Your task to perform on an android device: Go to Maps Image 0: 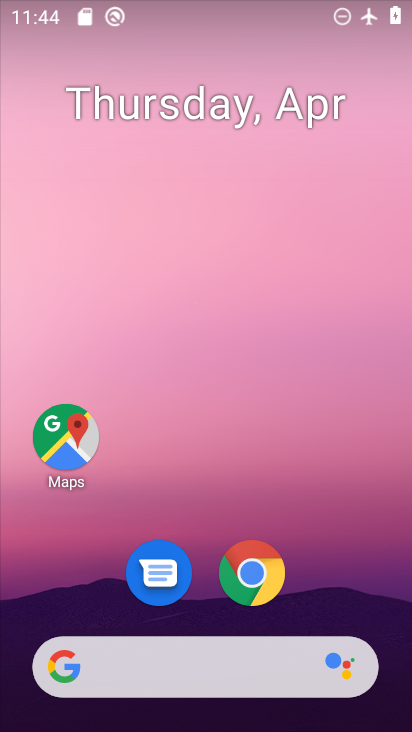
Step 0: click (73, 443)
Your task to perform on an android device: Go to Maps Image 1: 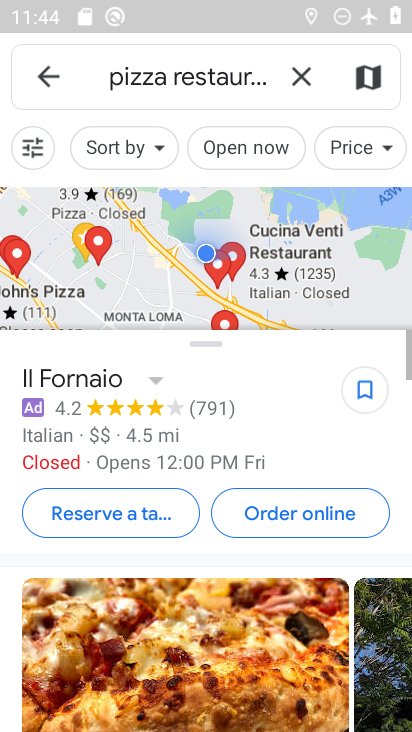
Step 1: task complete